Your task to perform on an android device: Toggle the flashlight Image 0: 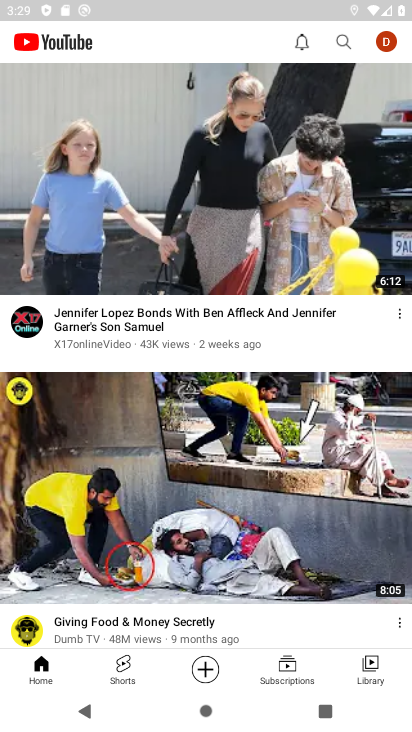
Step 0: press home button
Your task to perform on an android device: Toggle the flashlight Image 1: 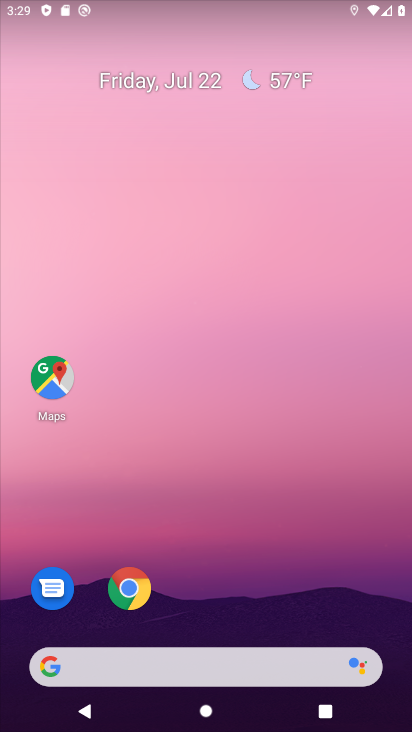
Step 1: drag from (238, 612) to (171, 158)
Your task to perform on an android device: Toggle the flashlight Image 2: 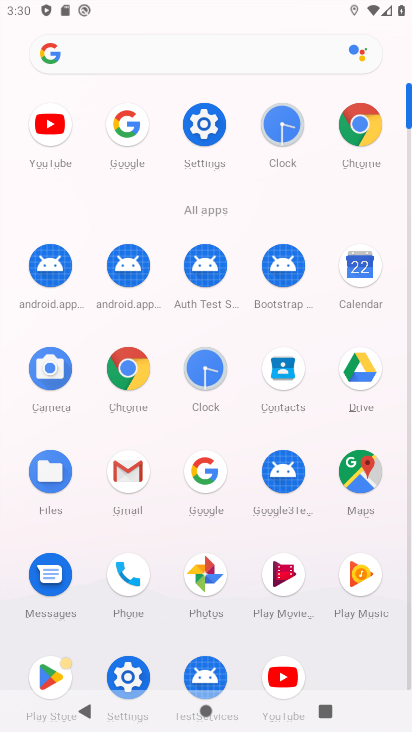
Step 2: click (129, 665)
Your task to perform on an android device: Toggle the flashlight Image 3: 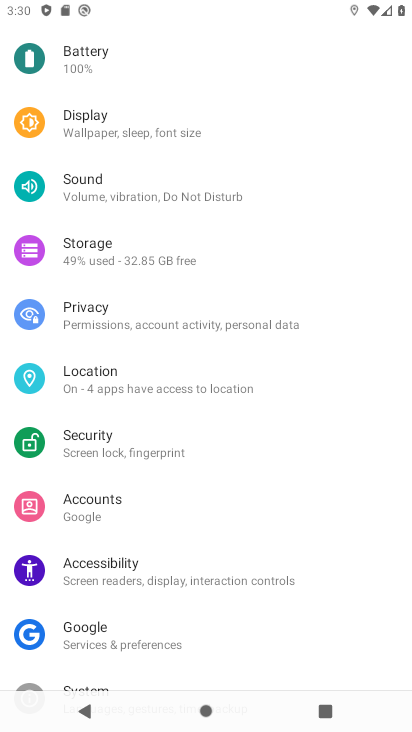
Step 3: task complete